Your task to perform on an android device: change the clock style Image 0: 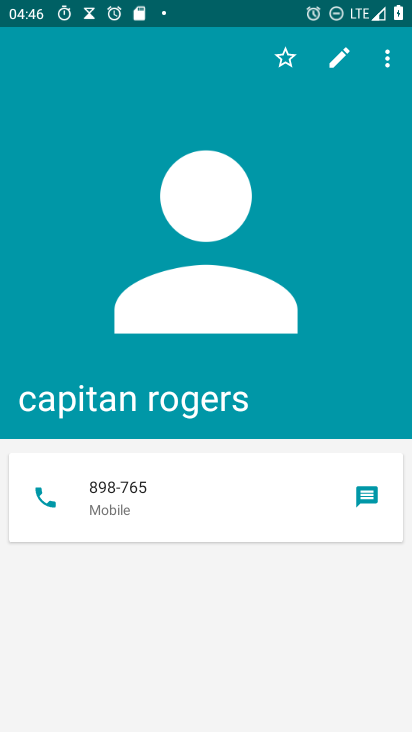
Step 0: press home button
Your task to perform on an android device: change the clock style Image 1: 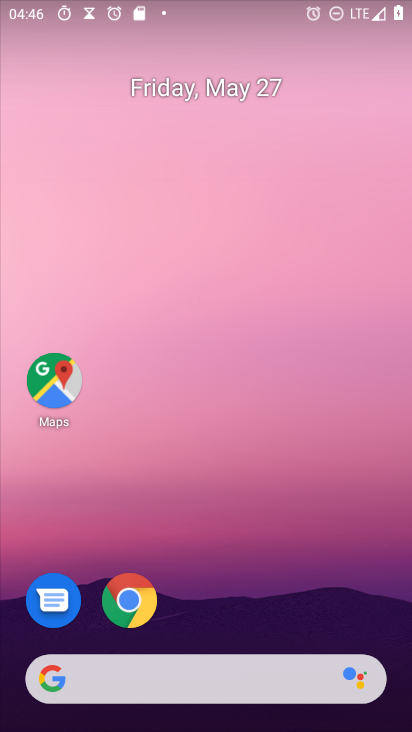
Step 1: drag from (221, 727) to (218, 215)
Your task to perform on an android device: change the clock style Image 2: 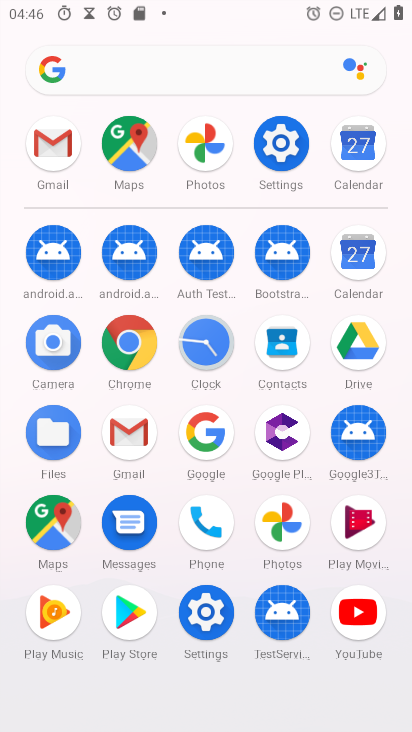
Step 2: click (214, 350)
Your task to perform on an android device: change the clock style Image 3: 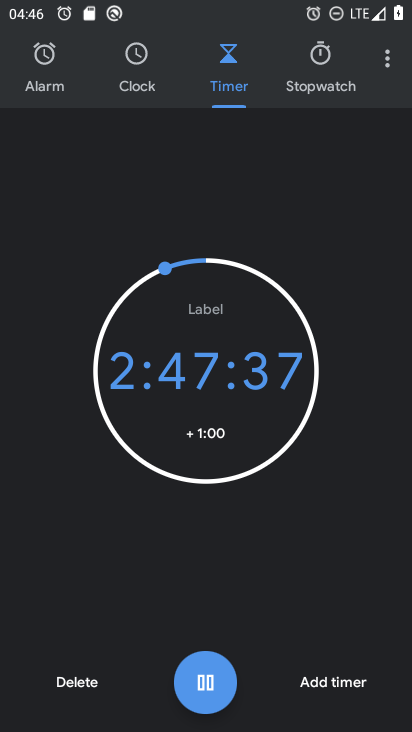
Step 3: click (388, 65)
Your task to perform on an android device: change the clock style Image 4: 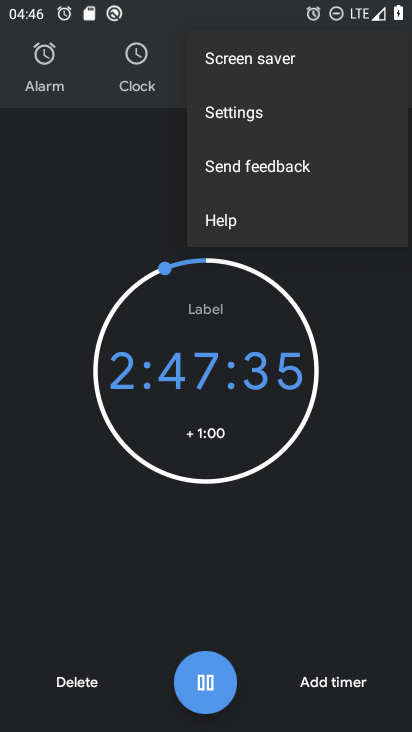
Step 4: click (275, 111)
Your task to perform on an android device: change the clock style Image 5: 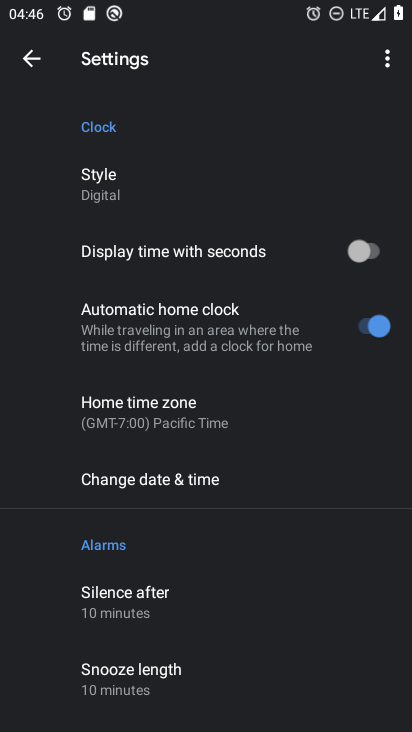
Step 5: click (97, 184)
Your task to perform on an android device: change the clock style Image 6: 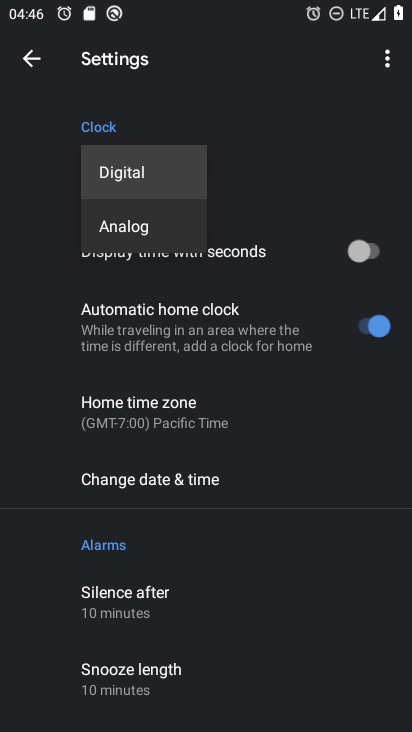
Step 6: click (123, 223)
Your task to perform on an android device: change the clock style Image 7: 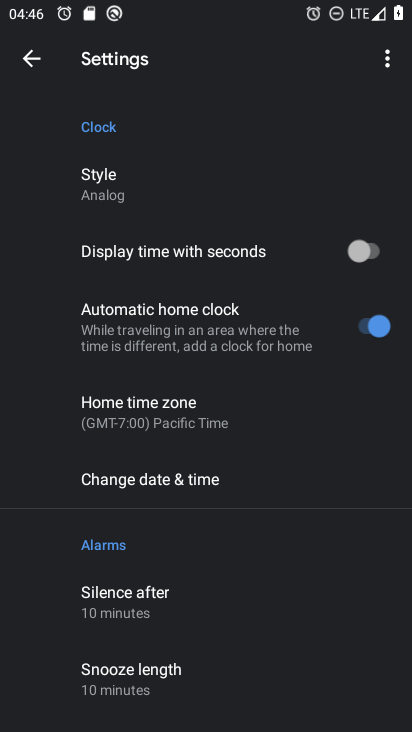
Step 7: task complete